Your task to perform on an android device: Go to Yahoo.com Image 0: 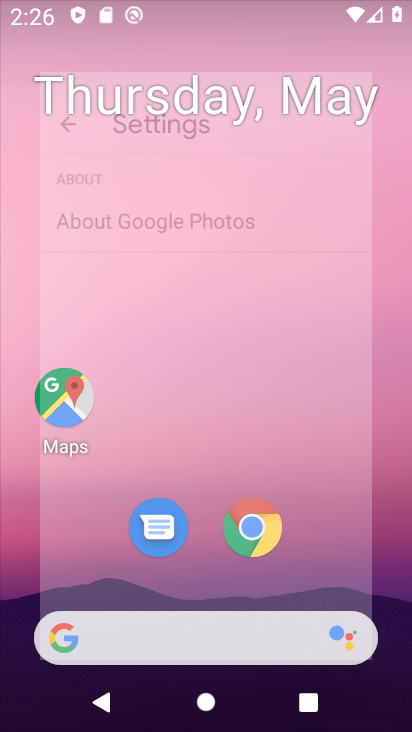
Step 0: drag from (328, 590) to (306, 175)
Your task to perform on an android device: Go to Yahoo.com Image 1: 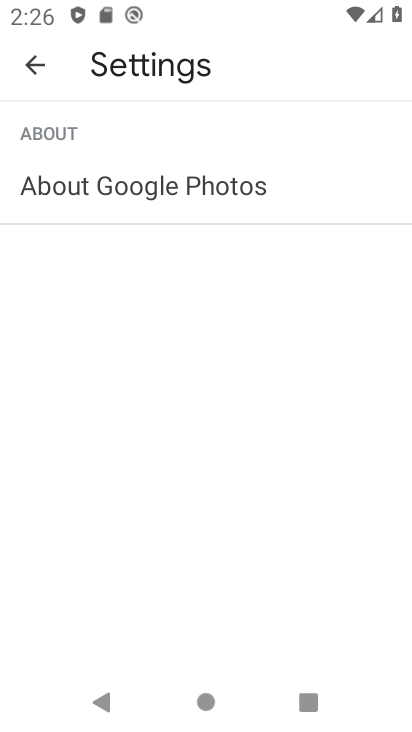
Step 1: press home button
Your task to perform on an android device: Go to Yahoo.com Image 2: 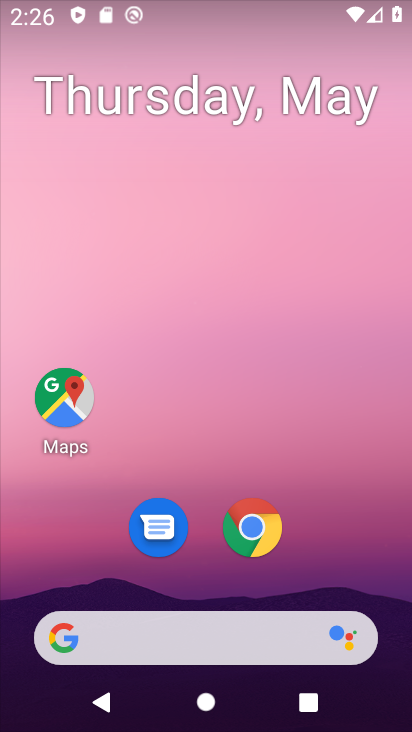
Step 2: click (282, 538)
Your task to perform on an android device: Go to Yahoo.com Image 3: 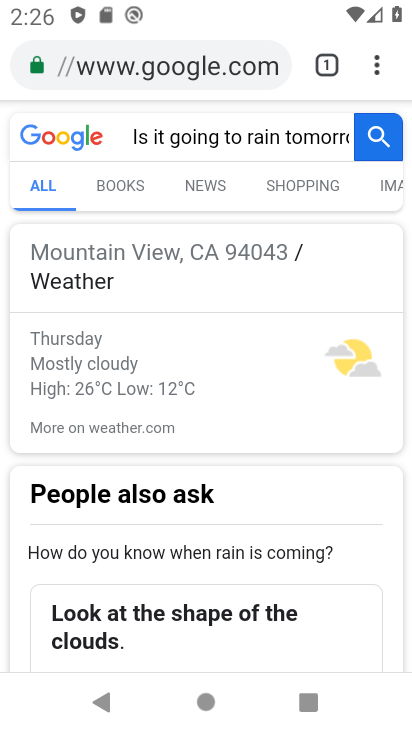
Step 3: click (202, 56)
Your task to perform on an android device: Go to Yahoo.com Image 4: 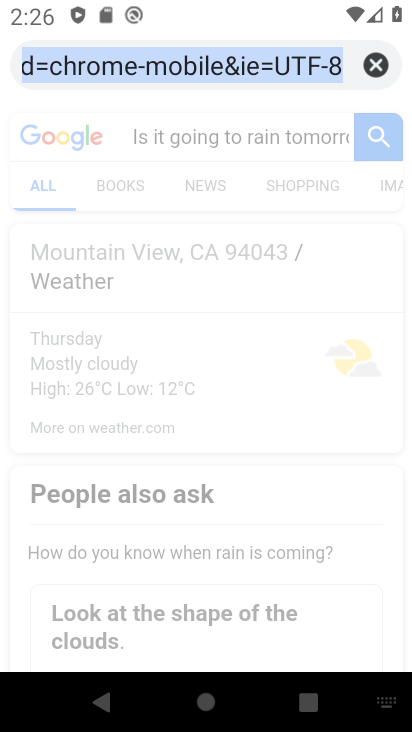
Step 4: click (376, 74)
Your task to perform on an android device: Go to Yahoo.com Image 5: 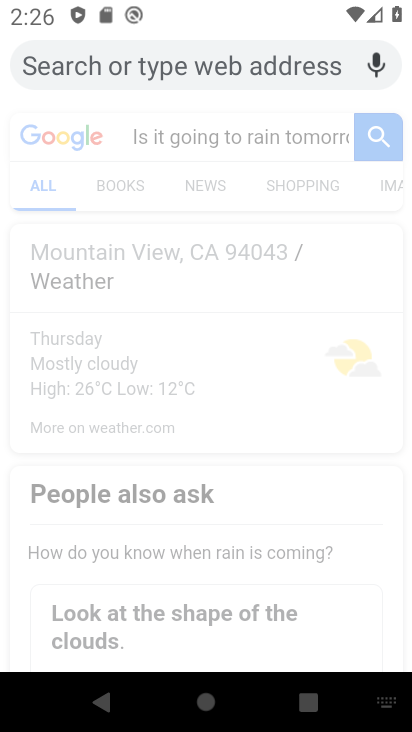
Step 5: type " Yahoo.com"
Your task to perform on an android device: Go to Yahoo.com Image 6: 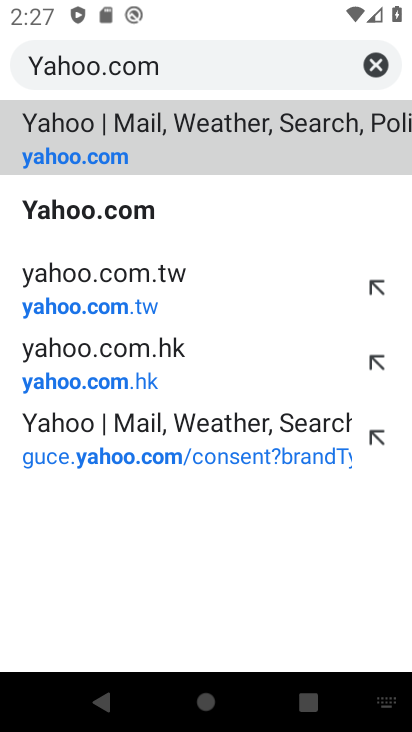
Step 6: click (202, 132)
Your task to perform on an android device: Go to Yahoo.com Image 7: 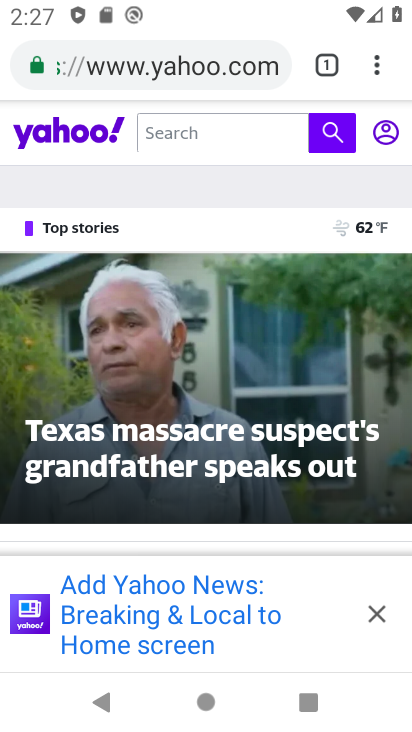
Step 7: task complete